Your task to perform on an android device: set default search engine in the chrome app Image 0: 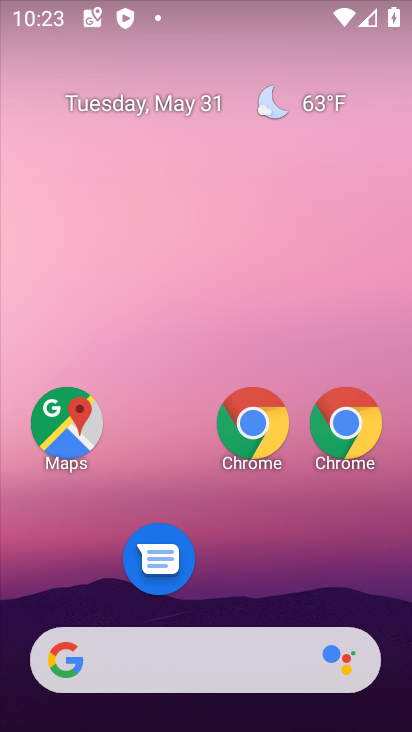
Step 0: drag from (233, 724) to (81, 105)
Your task to perform on an android device: set default search engine in the chrome app Image 1: 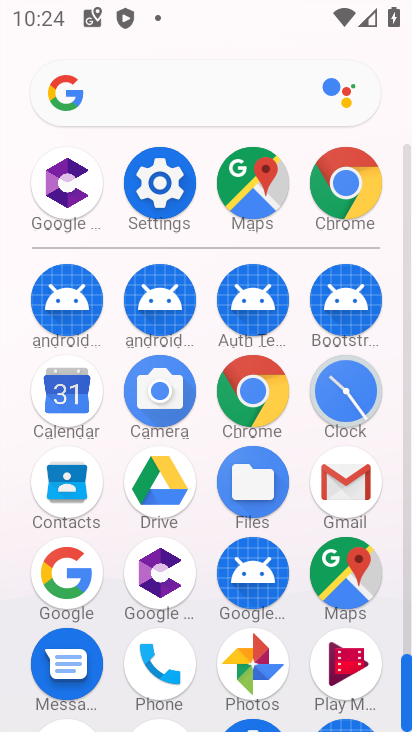
Step 1: click (339, 182)
Your task to perform on an android device: set default search engine in the chrome app Image 2: 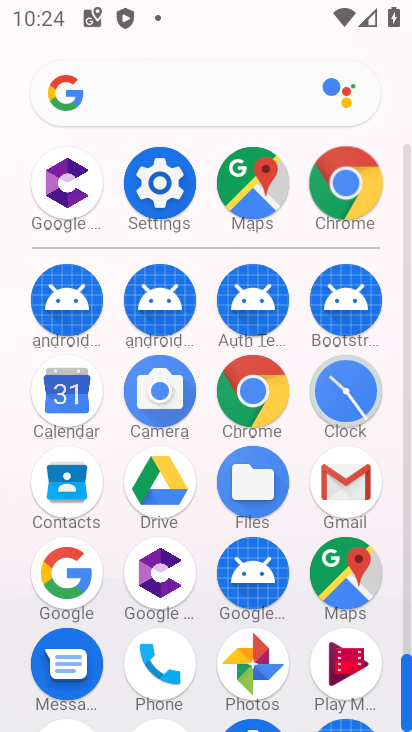
Step 2: click (339, 182)
Your task to perform on an android device: set default search engine in the chrome app Image 3: 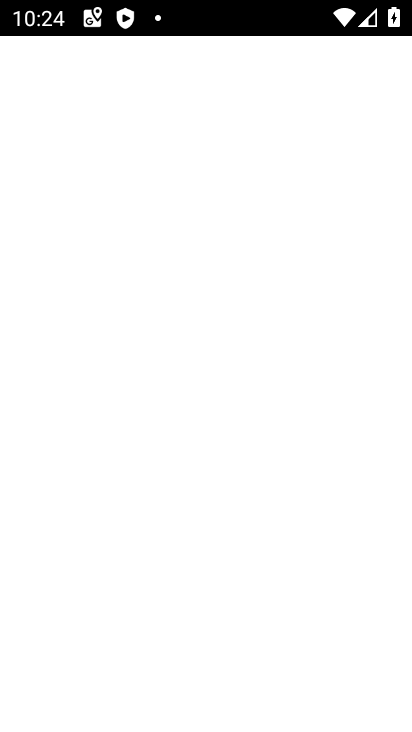
Step 3: click (341, 181)
Your task to perform on an android device: set default search engine in the chrome app Image 4: 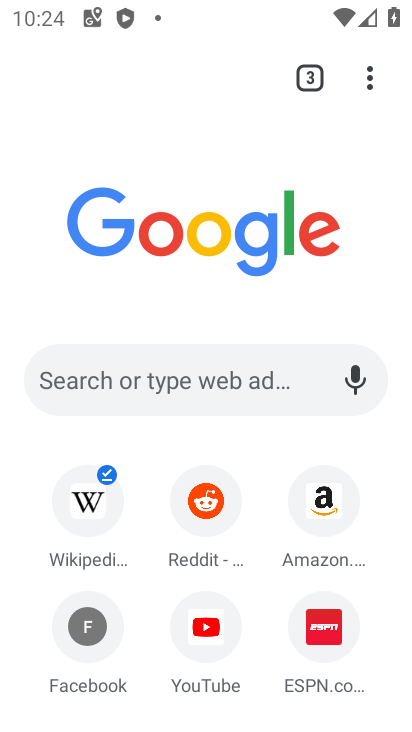
Step 4: drag from (369, 89) to (70, 615)
Your task to perform on an android device: set default search engine in the chrome app Image 5: 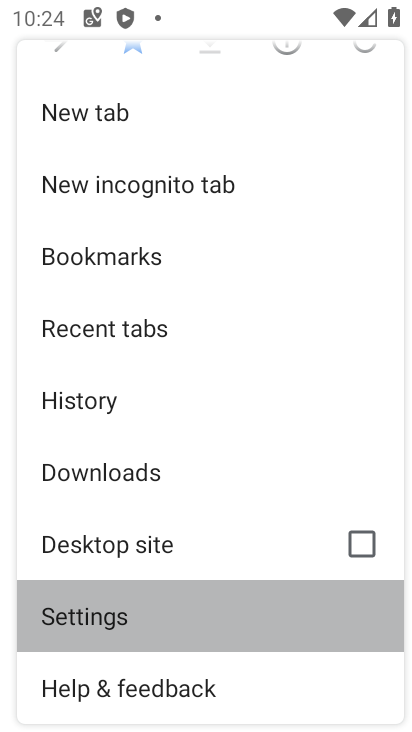
Step 5: click (74, 613)
Your task to perform on an android device: set default search engine in the chrome app Image 6: 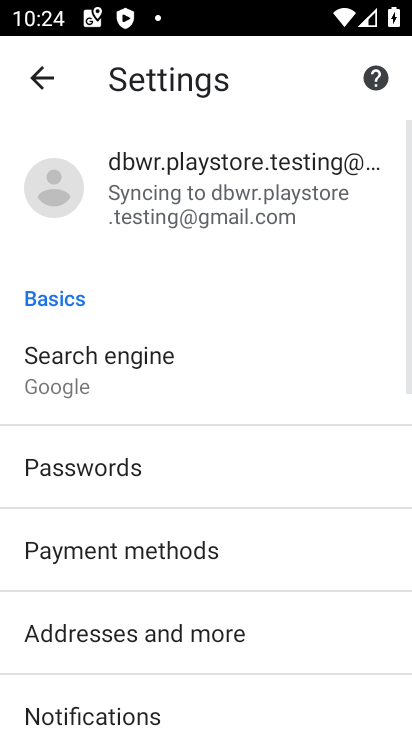
Step 6: click (74, 361)
Your task to perform on an android device: set default search engine in the chrome app Image 7: 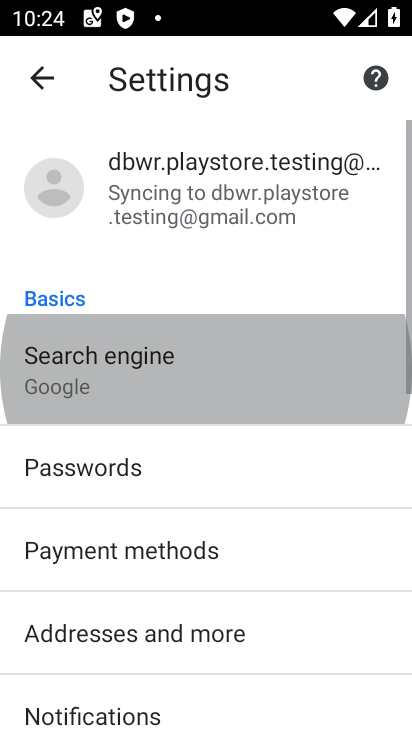
Step 7: click (71, 361)
Your task to perform on an android device: set default search engine in the chrome app Image 8: 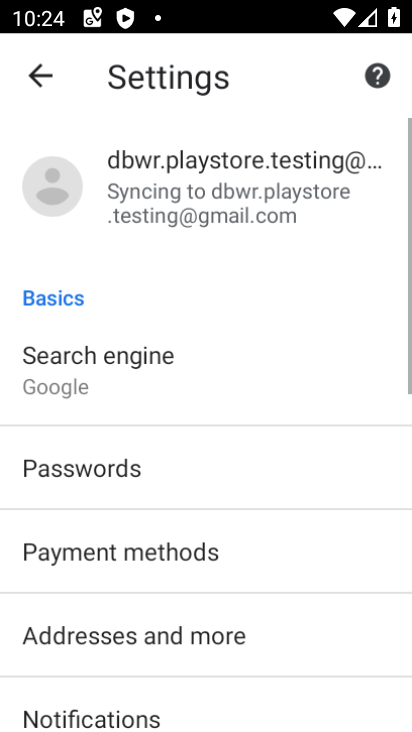
Step 8: click (71, 361)
Your task to perform on an android device: set default search engine in the chrome app Image 9: 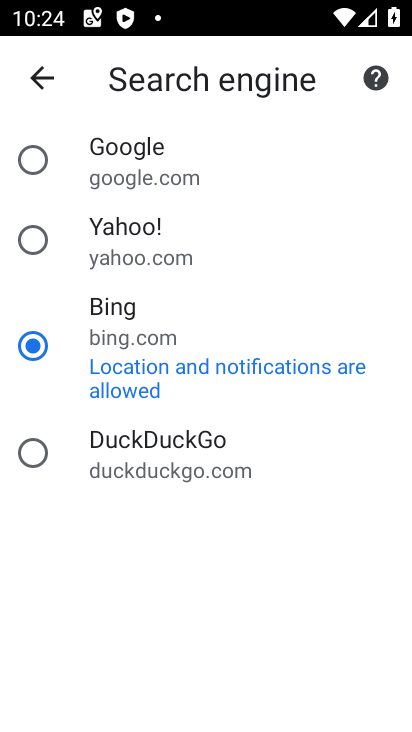
Step 9: click (29, 160)
Your task to perform on an android device: set default search engine in the chrome app Image 10: 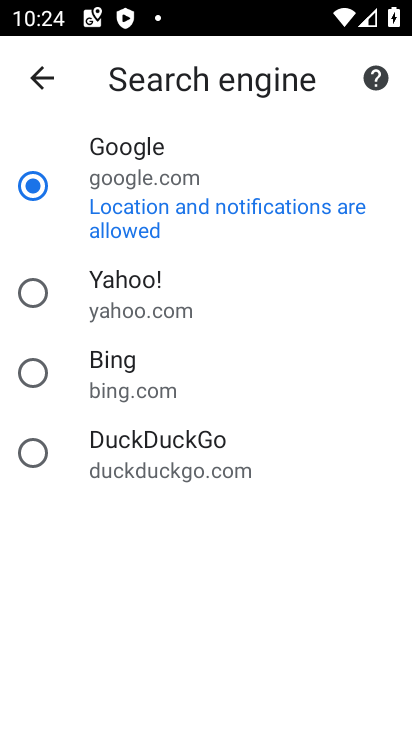
Step 10: task complete